Your task to perform on an android device: Find coffee shops on Maps Image 0: 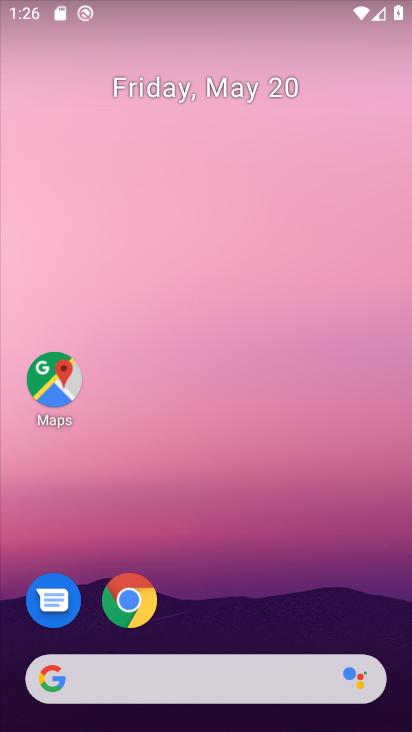
Step 0: click (52, 366)
Your task to perform on an android device: Find coffee shops on Maps Image 1: 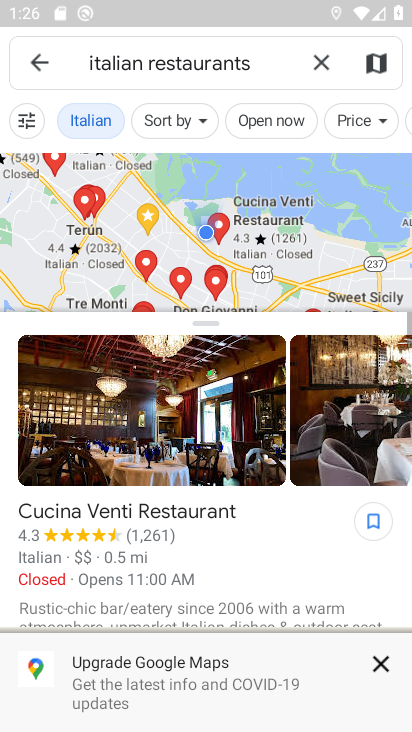
Step 1: click (322, 59)
Your task to perform on an android device: Find coffee shops on Maps Image 2: 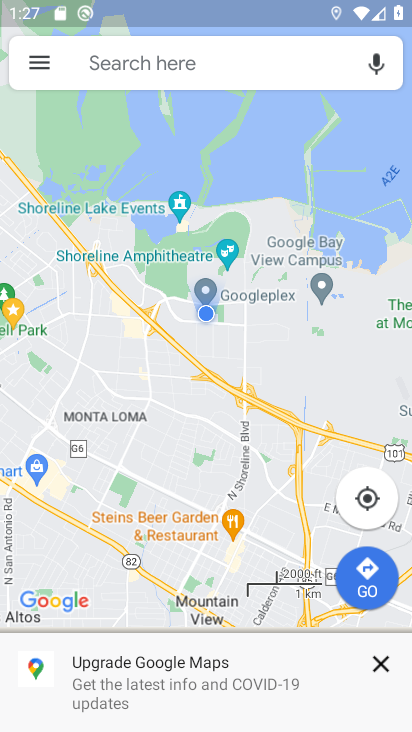
Step 2: click (146, 71)
Your task to perform on an android device: Find coffee shops on Maps Image 3: 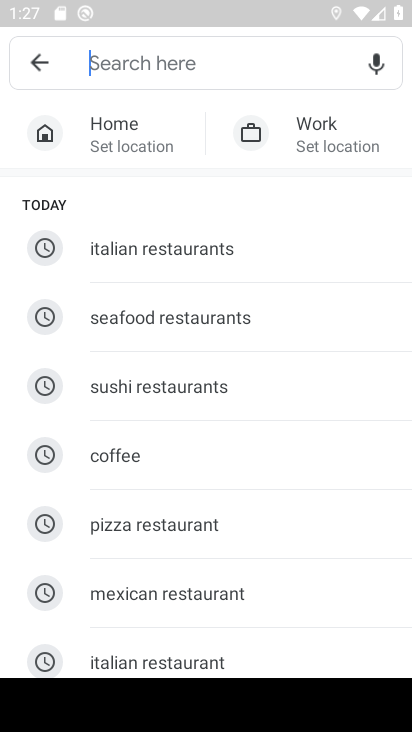
Step 3: click (178, 460)
Your task to perform on an android device: Find coffee shops on Maps Image 4: 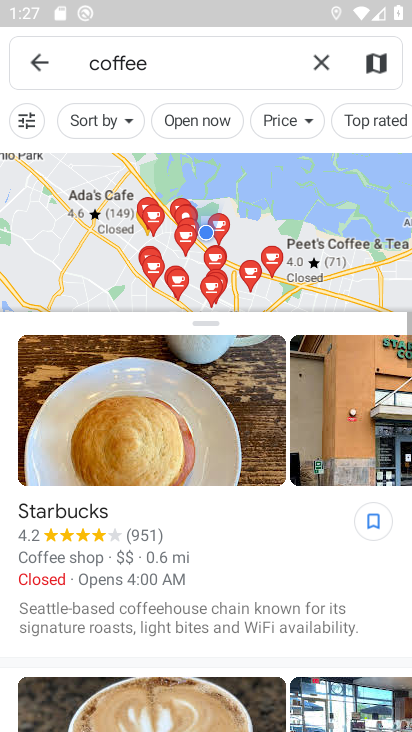
Step 4: task complete